Your task to perform on an android device: Open Google Chrome and click the shortcut for Amazon.com Image 0: 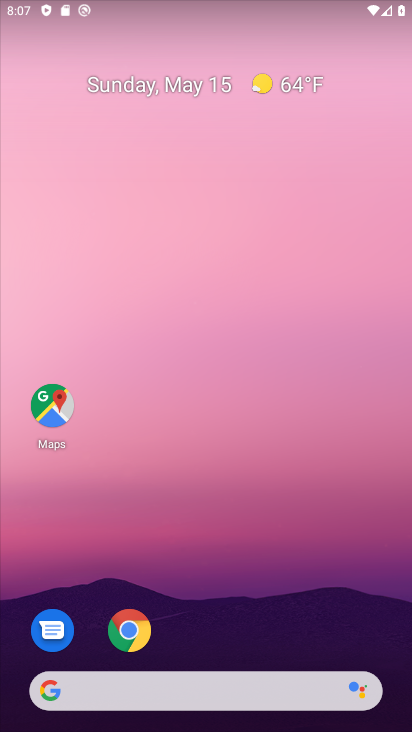
Step 0: drag from (308, 573) to (363, 102)
Your task to perform on an android device: Open Google Chrome and click the shortcut for Amazon.com Image 1: 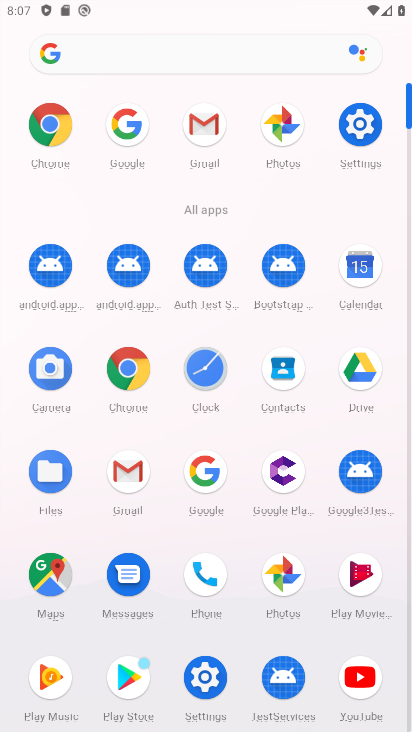
Step 1: click (49, 131)
Your task to perform on an android device: Open Google Chrome and click the shortcut for Amazon.com Image 2: 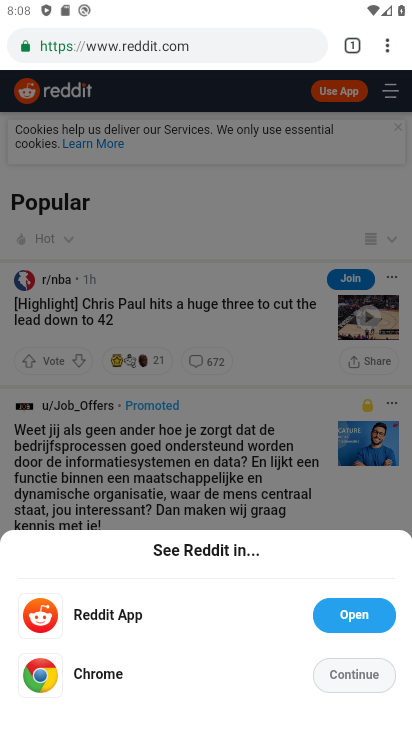
Step 2: click (193, 55)
Your task to perform on an android device: Open Google Chrome and click the shortcut for Amazon.com Image 3: 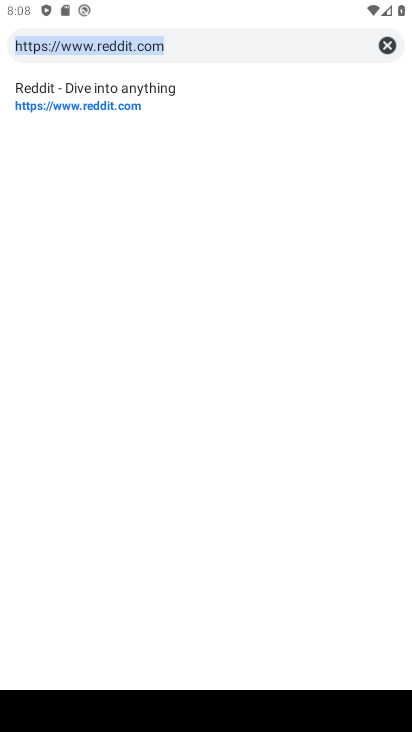
Step 3: click (387, 42)
Your task to perform on an android device: Open Google Chrome and click the shortcut for Amazon.com Image 4: 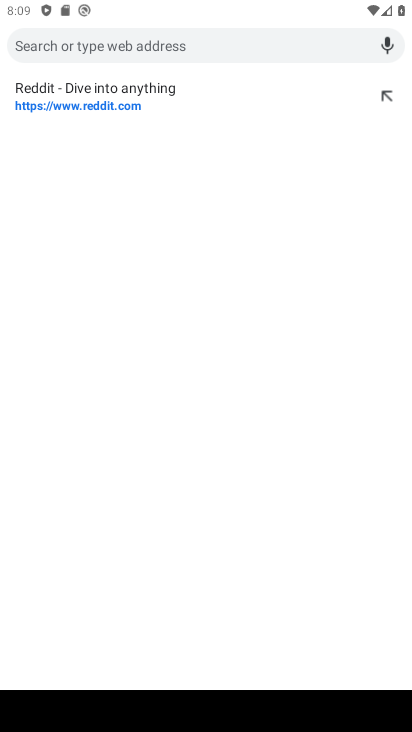
Step 4: type "amazon"
Your task to perform on an android device: Open Google Chrome and click the shortcut for Amazon.com Image 5: 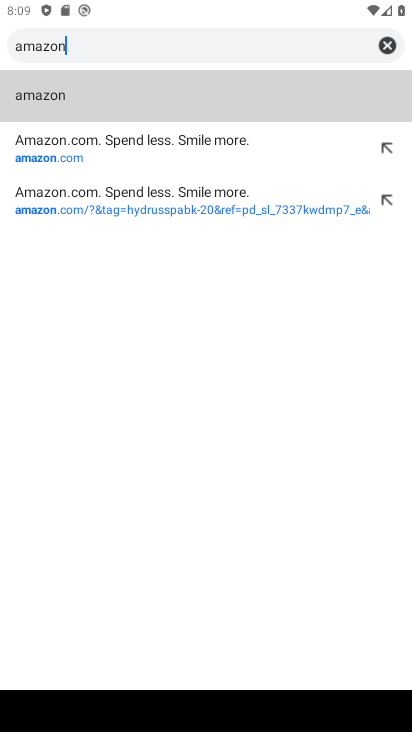
Step 5: click (68, 161)
Your task to perform on an android device: Open Google Chrome and click the shortcut for Amazon.com Image 6: 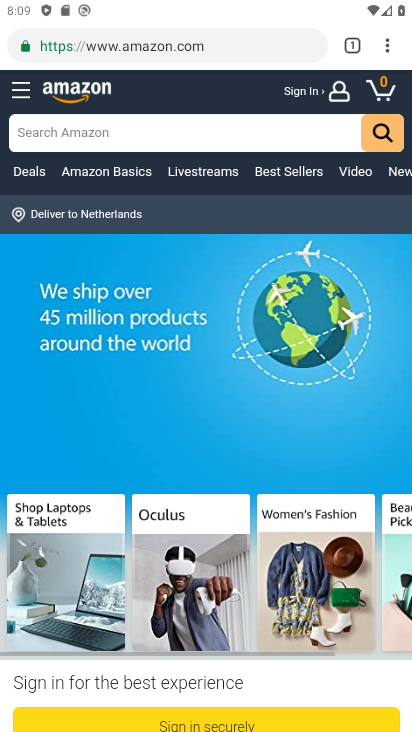
Step 6: drag from (377, 33) to (237, 406)
Your task to perform on an android device: Open Google Chrome and click the shortcut for Amazon.com Image 7: 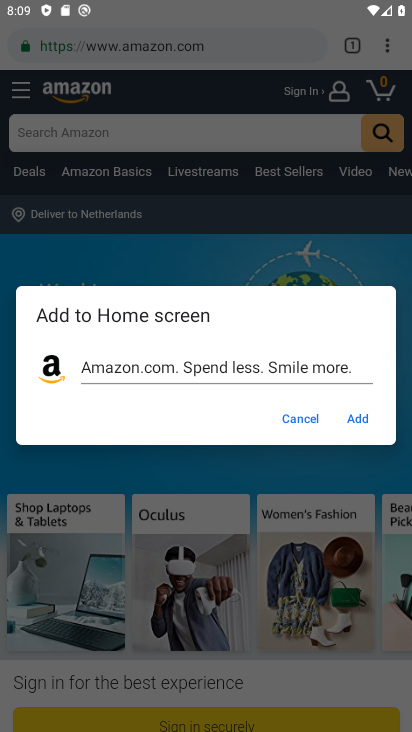
Step 7: click (372, 414)
Your task to perform on an android device: Open Google Chrome and click the shortcut for Amazon.com Image 8: 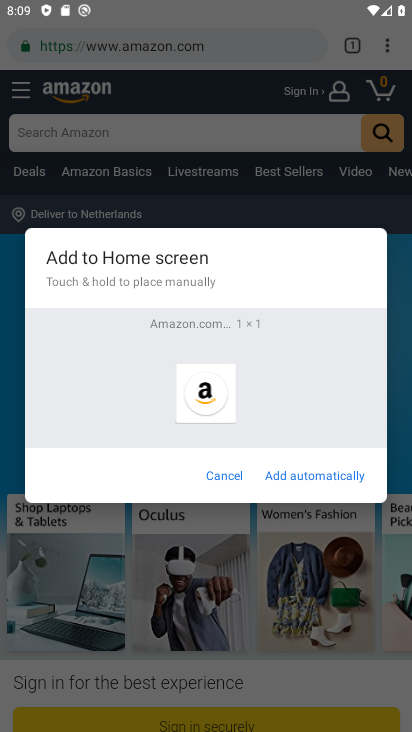
Step 8: click (337, 478)
Your task to perform on an android device: Open Google Chrome and click the shortcut for Amazon.com Image 9: 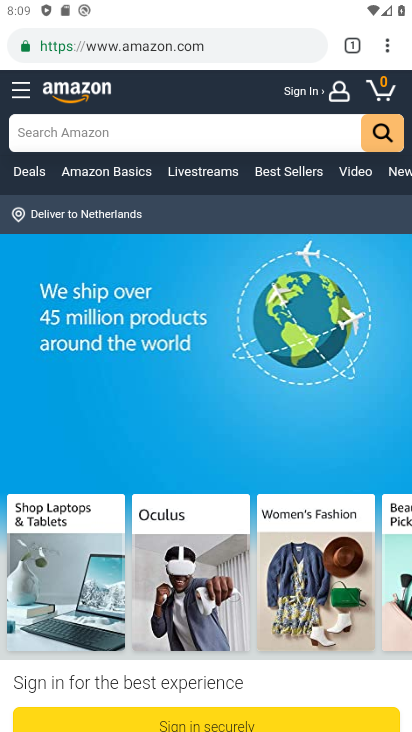
Step 9: task complete